Your task to perform on an android device: Clear the shopping cart on newegg.com. Add apple airpods pro to the cart on newegg.com, then select checkout. Image 0: 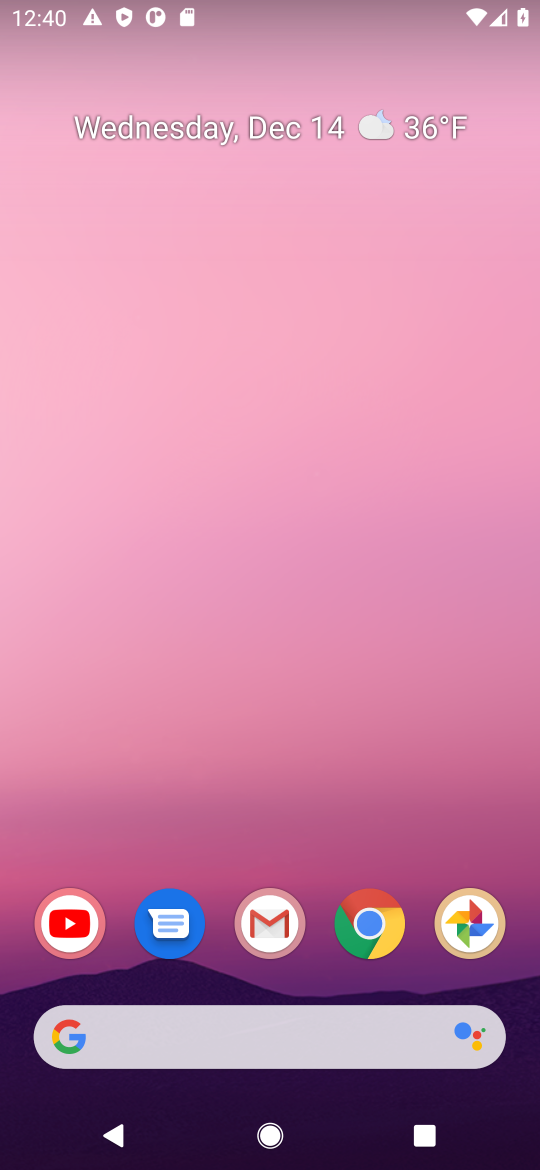
Step 0: click (240, 1041)
Your task to perform on an android device: Clear the shopping cart on newegg.com. Add apple airpods pro to the cart on newegg.com, then select checkout. Image 1: 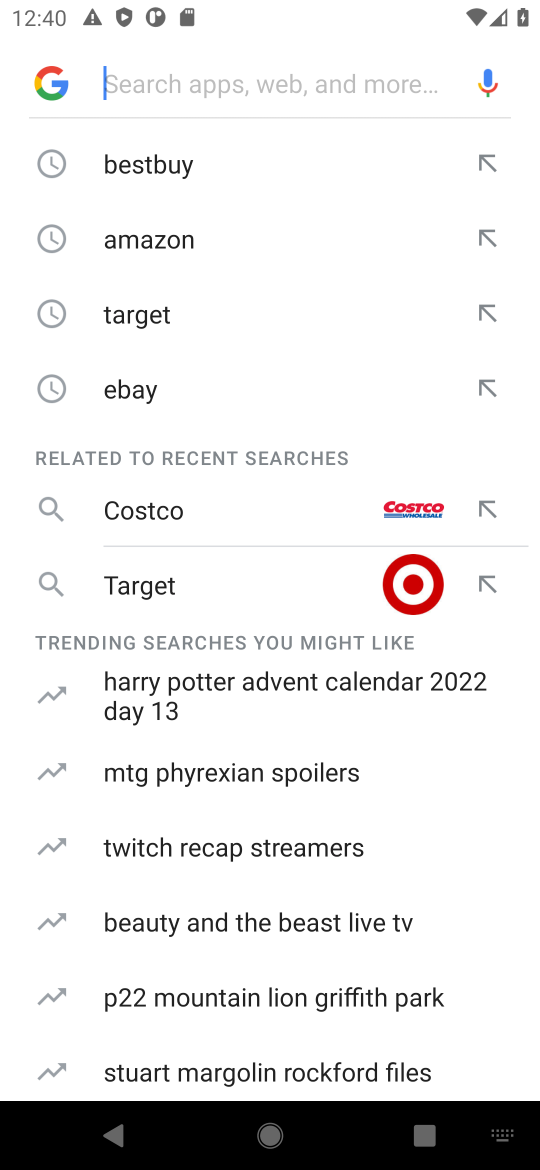
Step 1: type "newegg"
Your task to perform on an android device: Clear the shopping cart on newegg.com. Add apple airpods pro to the cart on newegg.com, then select checkout. Image 2: 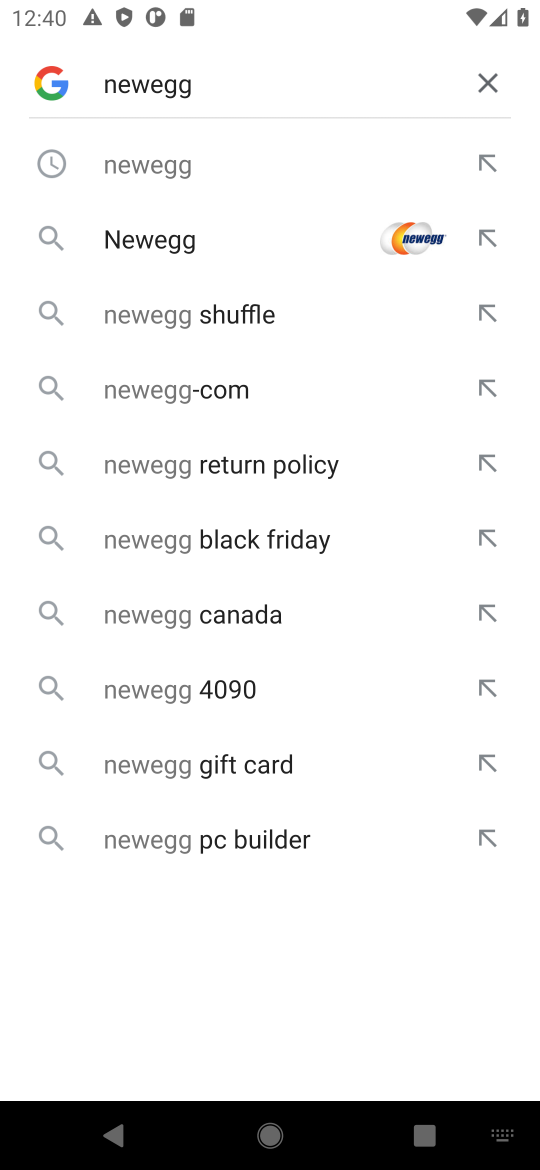
Step 2: click (273, 242)
Your task to perform on an android device: Clear the shopping cart on newegg.com. Add apple airpods pro to the cart on newegg.com, then select checkout. Image 3: 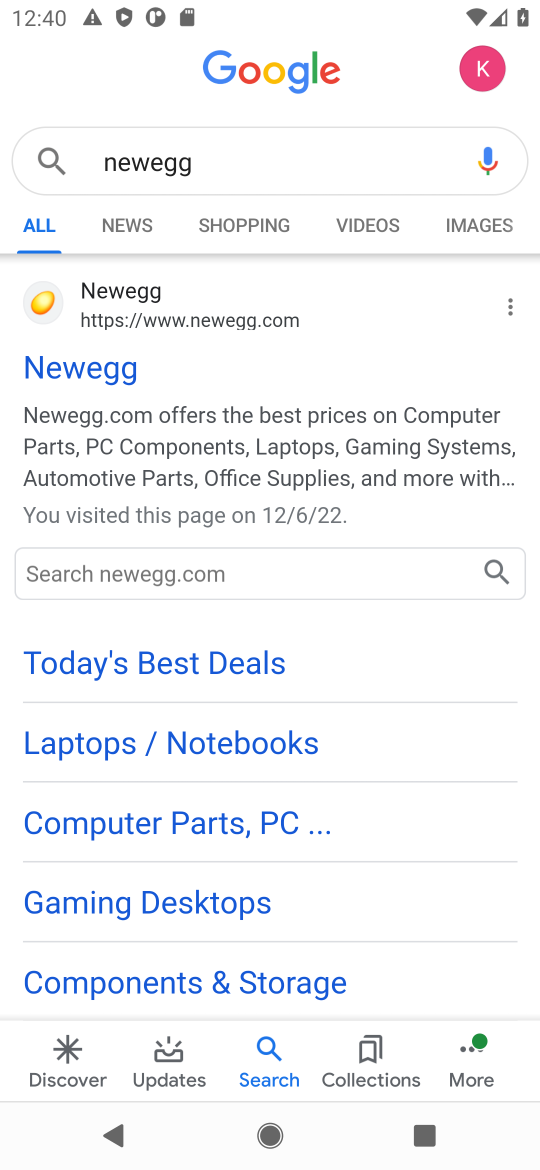
Step 3: click (140, 372)
Your task to perform on an android device: Clear the shopping cart on newegg.com. Add apple airpods pro to the cart on newegg.com, then select checkout. Image 4: 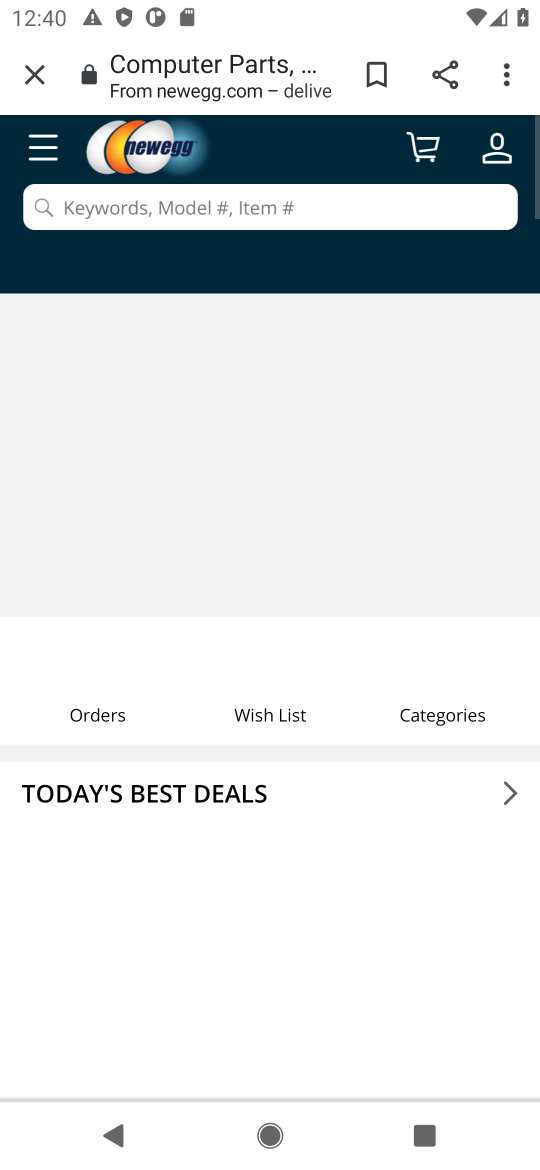
Step 4: click (341, 218)
Your task to perform on an android device: Clear the shopping cart on newegg.com. Add apple airpods pro to the cart on newegg.com, then select checkout. Image 5: 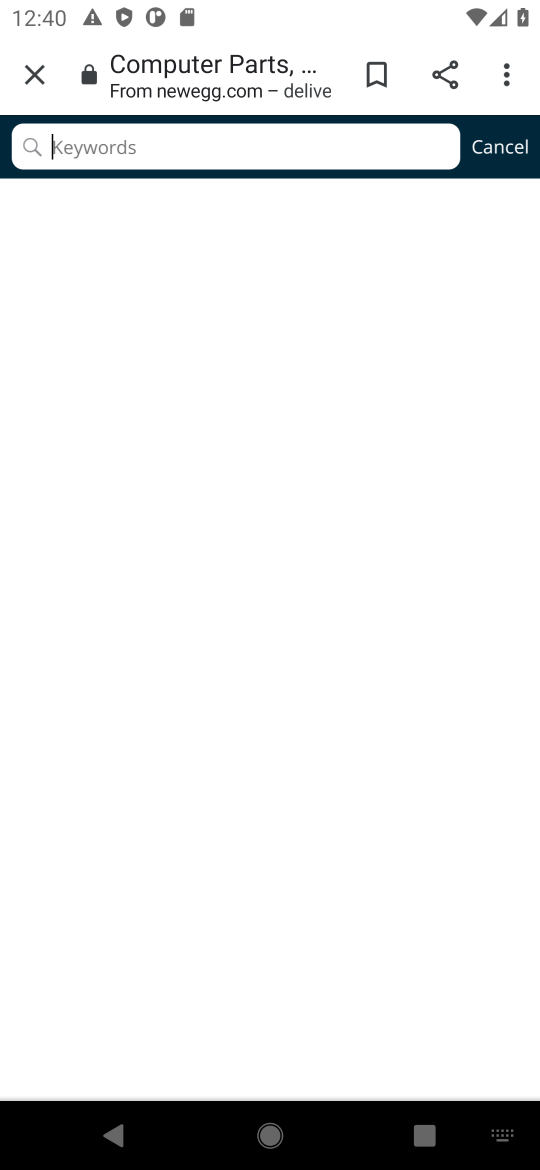
Step 5: type "apple airpods pro"
Your task to perform on an android device: Clear the shopping cart on newegg.com. Add apple airpods pro to the cart on newegg.com, then select checkout. Image 6: 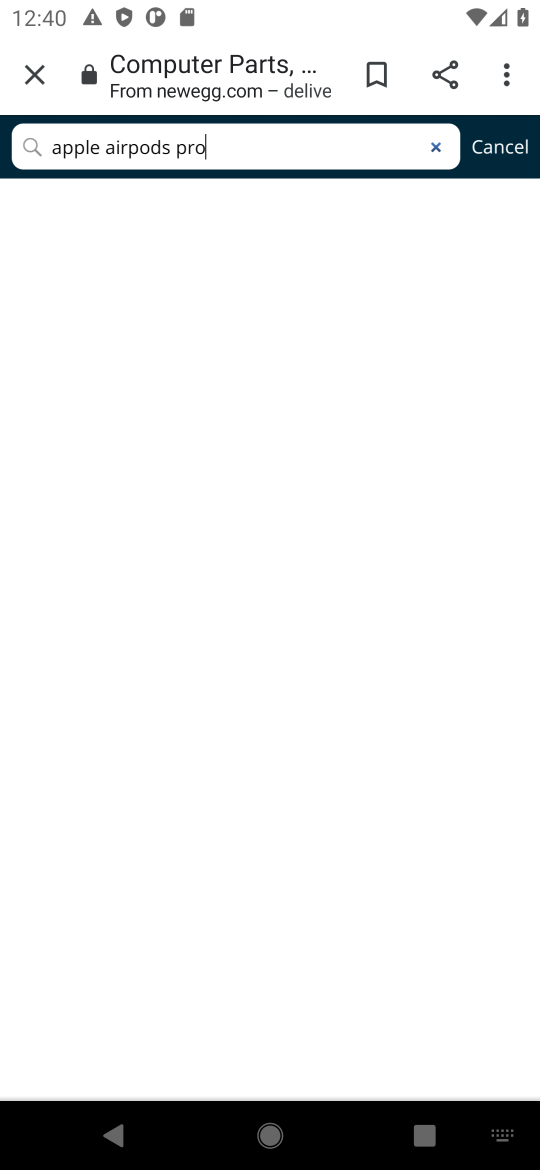
Step 6: task complete